Your task to perform on an android device: add a label to a message in the gmail app Image 0: 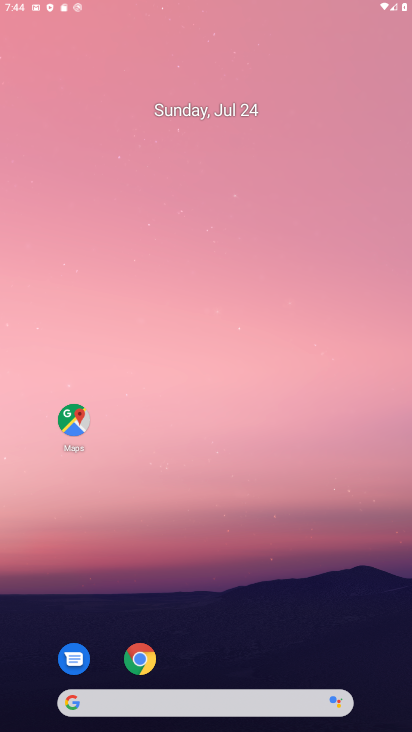
Step 0: click (361, 455)
Your task to perform on an android device: add a label to a message in the gmail app Image 1: 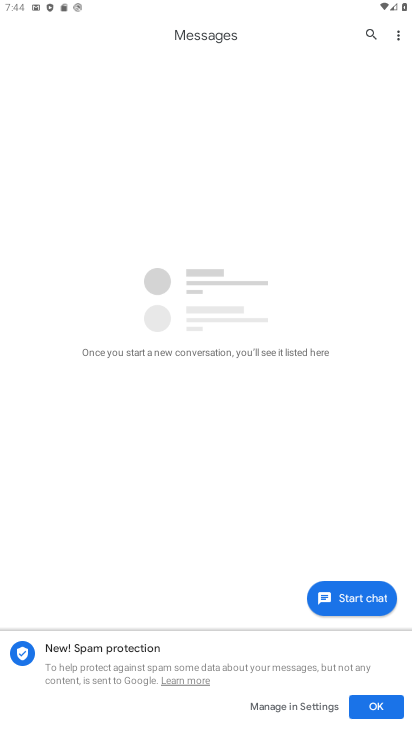
Step 1: press home button
Your task to perform on an android device: add a label to a message in the gmail app Image 2: 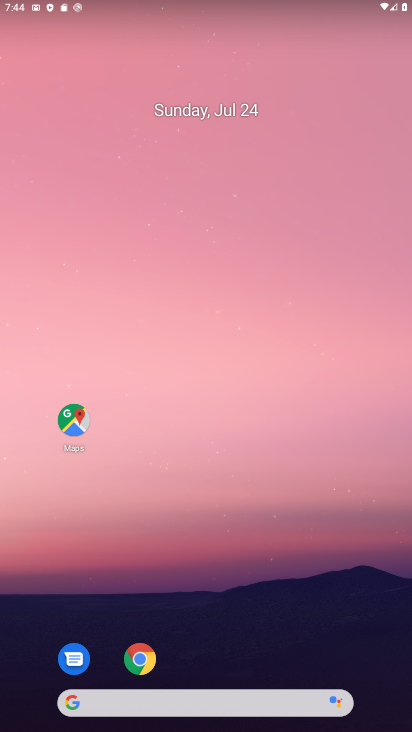
Step 2: drag from (221, 669) to (272, 5)
Your task to perform on an android device: add a label to a message in the gmail app Image 3: 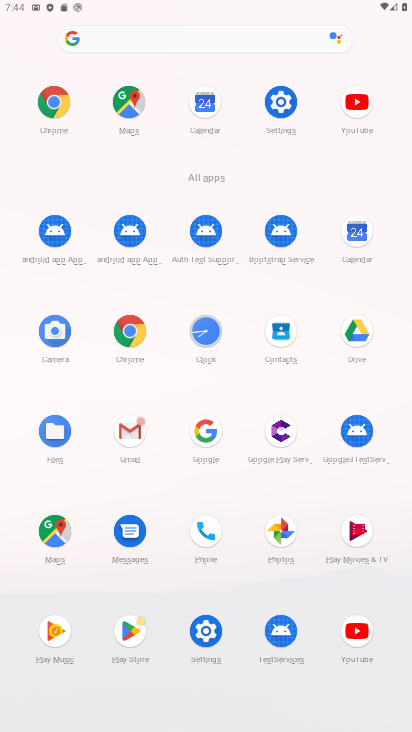
Step 3: click (130, 437)
Your task to perform on an android device: add a label to a message in the gmail app Image 4: 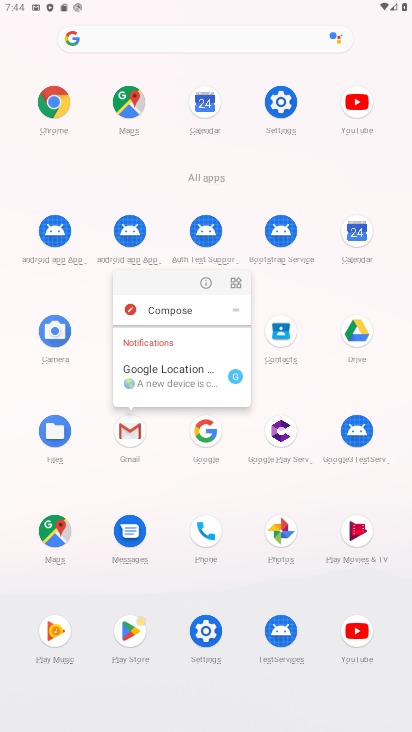
Step 4: click (130, 437)
Your task to perform on an android device: add a label to a message in the gmail app Image 5: 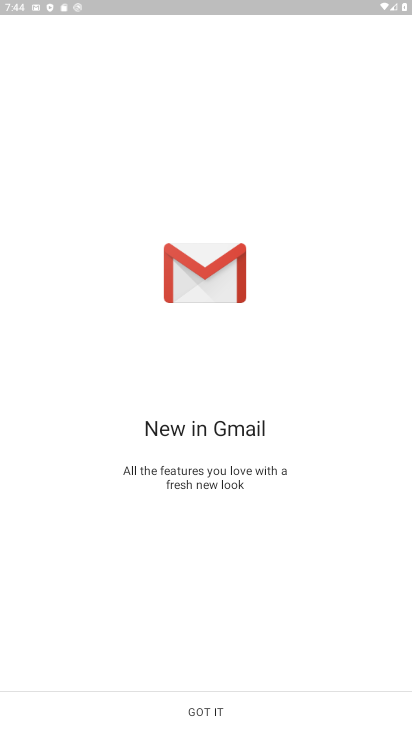
Step 5: click (197, 716)
Your task to perform on an android device: add a label to a message in the gmail app Image 6: 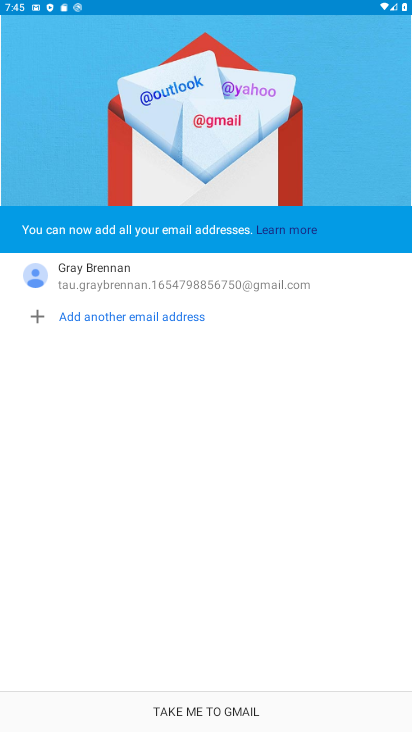
Step 6: click (226, 708)
Your task to perform on an android device: add a label to a message in the gmail app Image 7: 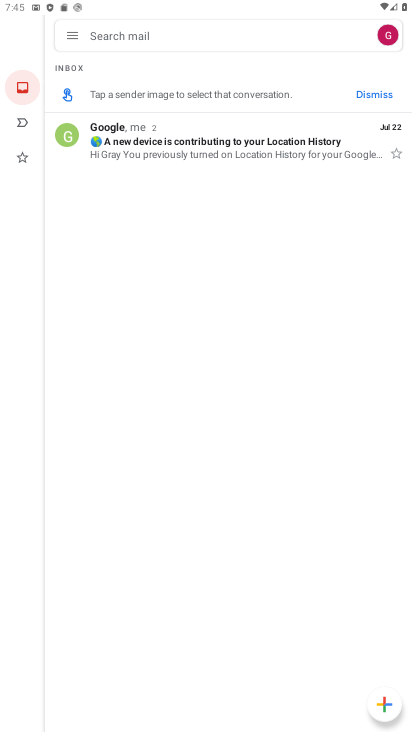
Step 7: click (210, 143)
Your task to perform on an android device: add a label to a message in the gmail app Image 8: 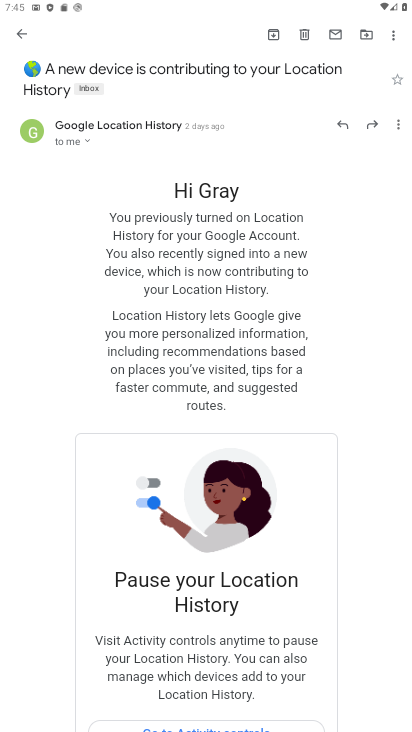
Step 8: click (20, 35)
Your task to perform on an android device: add a label to a message in the gmail app Image 9: 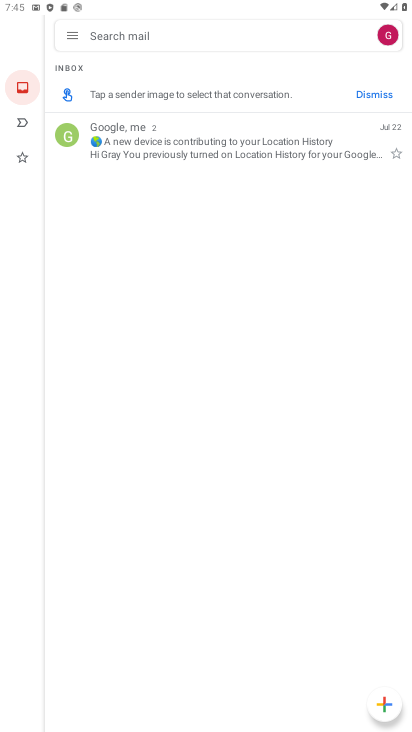
Step 9: click (68, 36)
Your task to perform on an android device: add a label to a message in the gmail app Image 10: 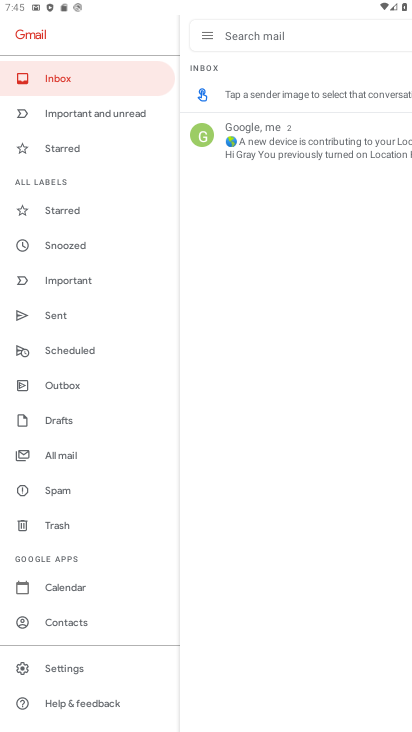
Step 10: click (76, 453)
Your task to perform on an android device: add a label to a message in the gmail app Image 11: 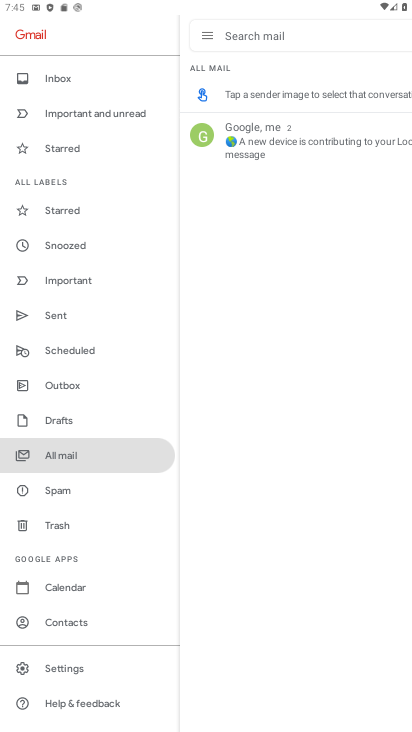
Step 11: click (241, 132)
Your task to perform on an android device: add a label to a message in the gmail app Image 12: 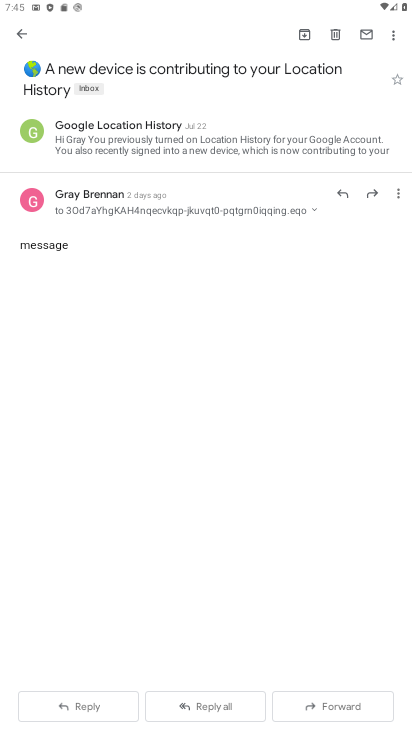
Step 12: click (181, 209)
Your task to perform on an android device: add a label to a message in the gmail app Image 13: 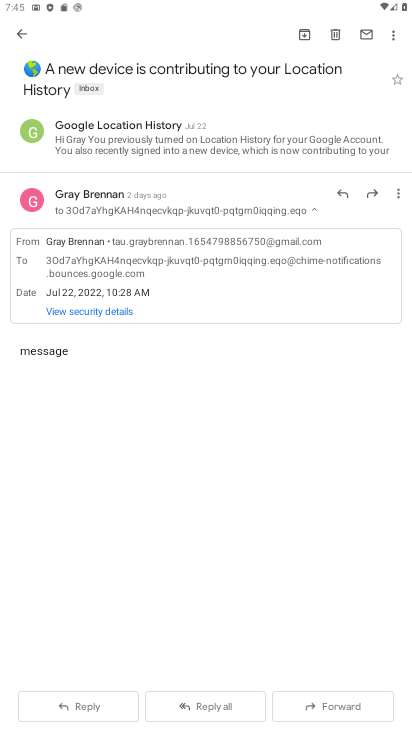
Step 13: click (397, 194)
Your task to perform on an android device: add a label to a message in the gmail app Image 14: 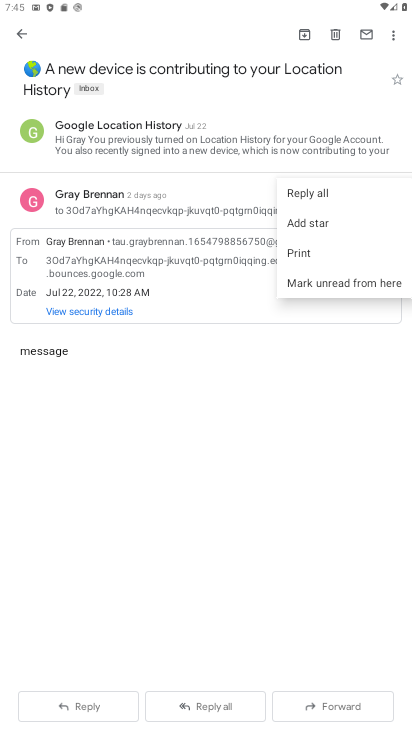
Step 14: click (320, 405)
Your task to perform on an android device: add a label to a message in the gmail app Image 15: 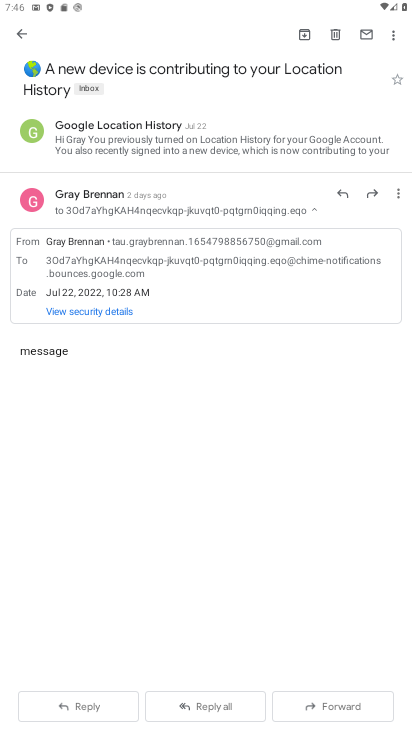
Step 15: click (395, 35)
Your task to perform on an android device: add a label to a message in the gmail app Image 16: 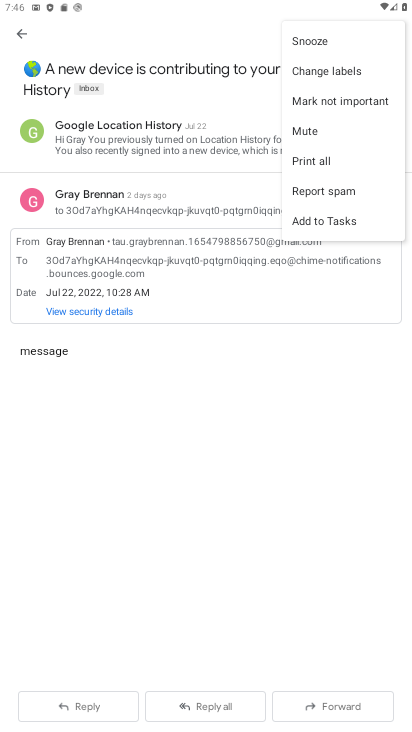
Step 16: task complete